Your task to perform on an android device: open a new tab in the chrome app Image 0: 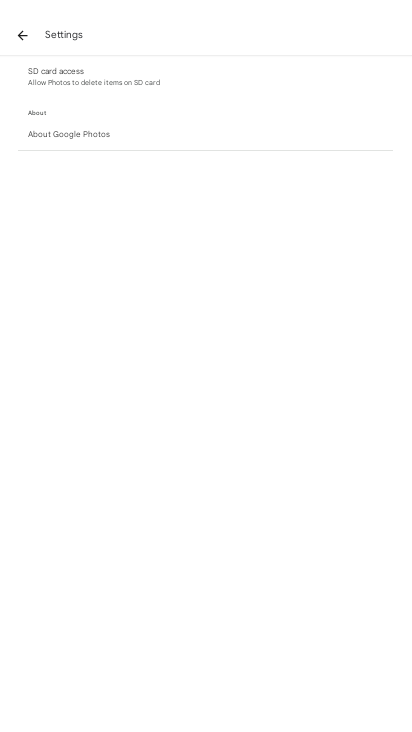
Step 0: click (15, 32)
Your task to perform on an android device: open a new tab in the chrome app Image 1: 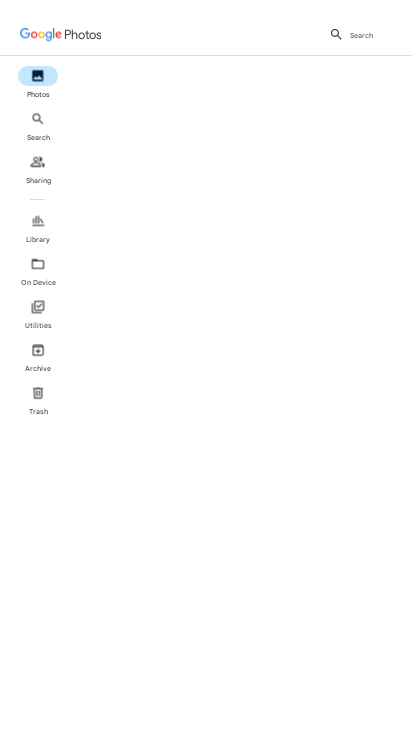
Step 1: click (20, 41)
Your task to perform on an android device: open a new tab in the chrome app Image 2: 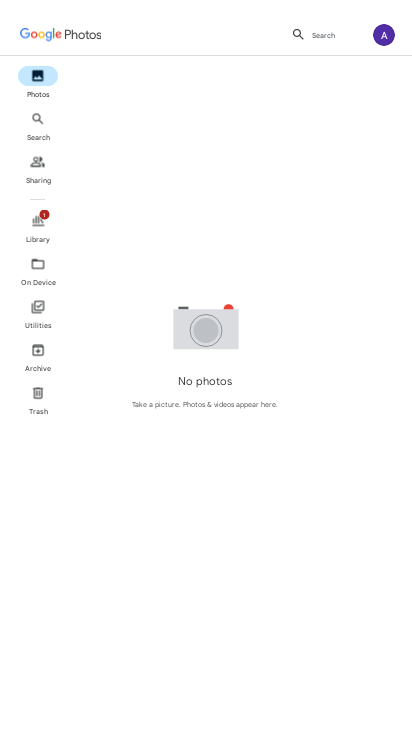
Step 2: press home button
Your task to perform on an android device: open a new tab in the chrome app Image 3: 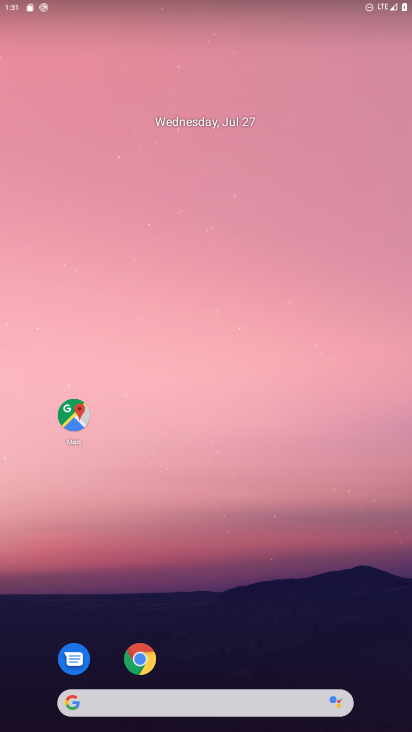
Step 3: click (133, 649)
Your task to perform on an android device: open a new tab in the chrome app Image 4: 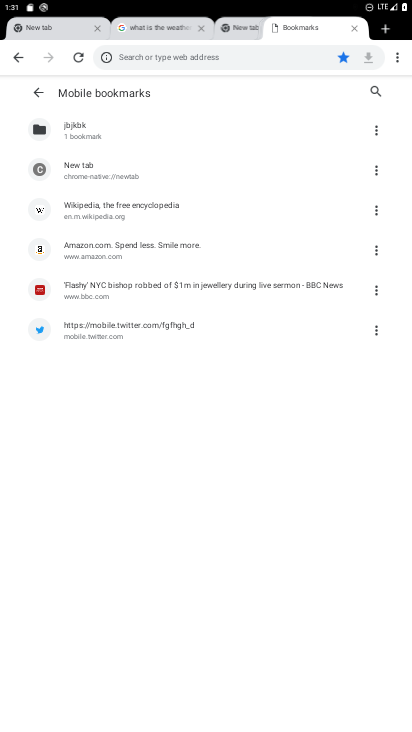
Step 4: click (95, 29)
Your task to perform on an android device: open a new tab in the chrome app Image 5: 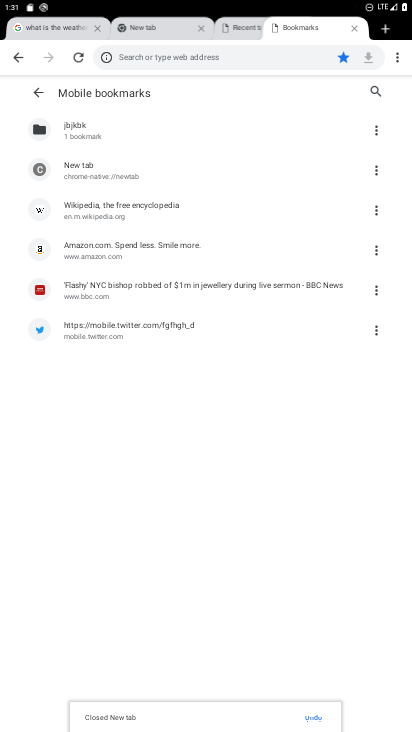
Step 5: click (99, 29)
Your task to perform on an android device: open a new tab in the chrome app Image 6: 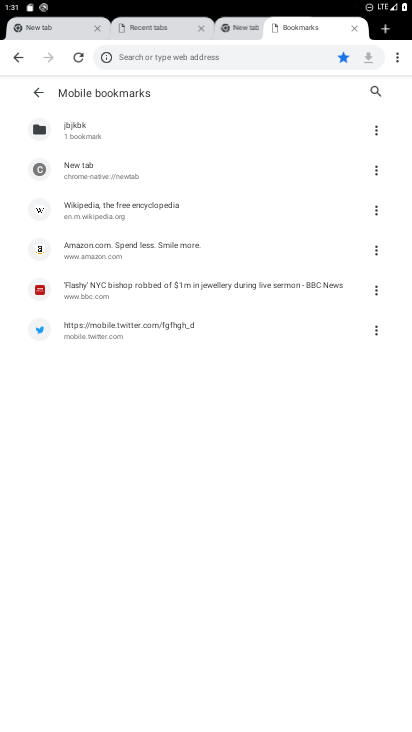
Step 6: click (99, 29)
Your task to perform on an android device: open a new tab in the chrome app Image 7: 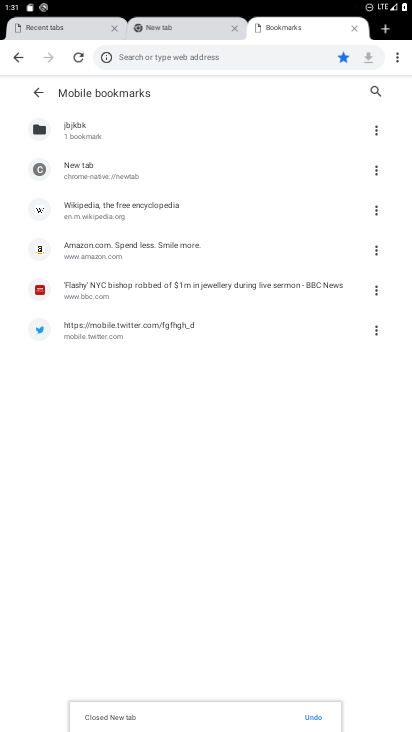
Step 7: click (117, 27)
Your task to perform on an android device: open a new tab in the chrome app Image 8: 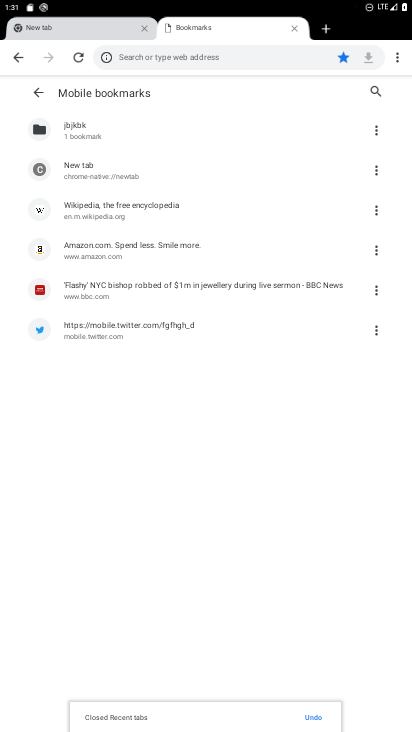
Step 8: click (141, 27)
Your task to perform on an android device: open a new tab in the chrome app Image 9: 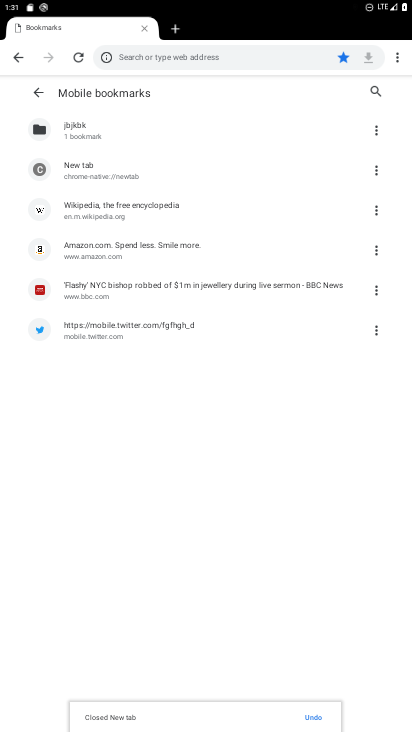
Step 9: click (142, 26)
Your task to perform on an android device: open a new tab in the chrome app Image 10: 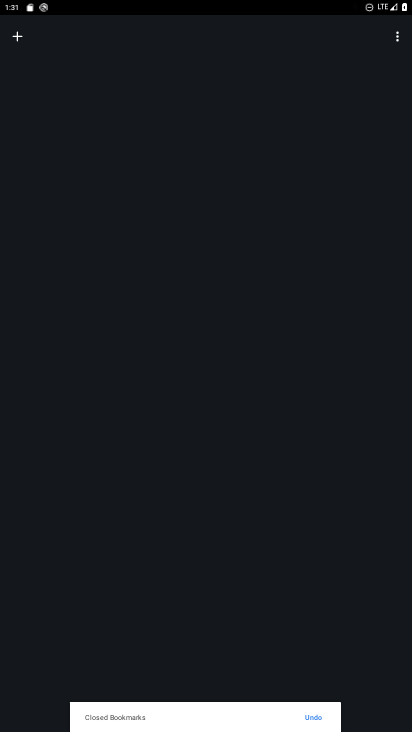
Step 10: click (17, 40)
Your task to perform on an android device: open a new tab in the chrome app Image 11: 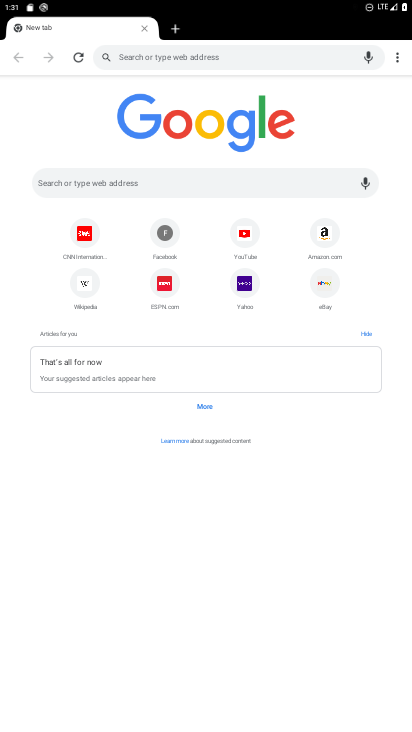
Step 11: task complete